Your task to perform on an android device: turn on data saver in the chrome app Image 0: 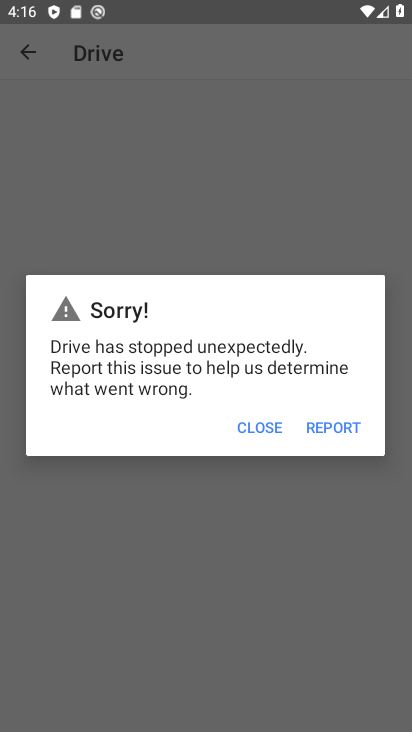
Step 0: press home button
Your task to perform on an android device: turn on data saver in the chrome app Image 1: 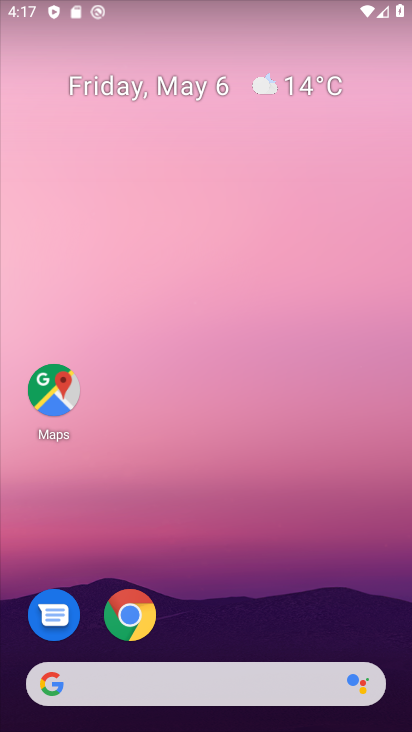
Step 1: click (244, 619)
Your task to perform on an android device: turn on data saver in the chrome app Image 2: 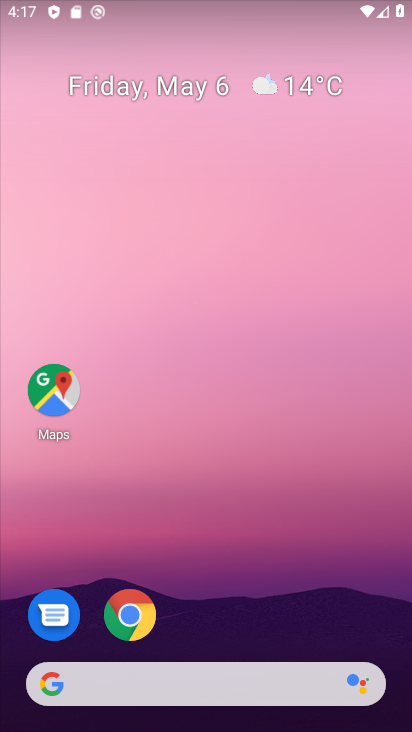
Step 2: click (128, 619)
Your task to perform on an android device: turn on data saver in the chrome app Image 3: 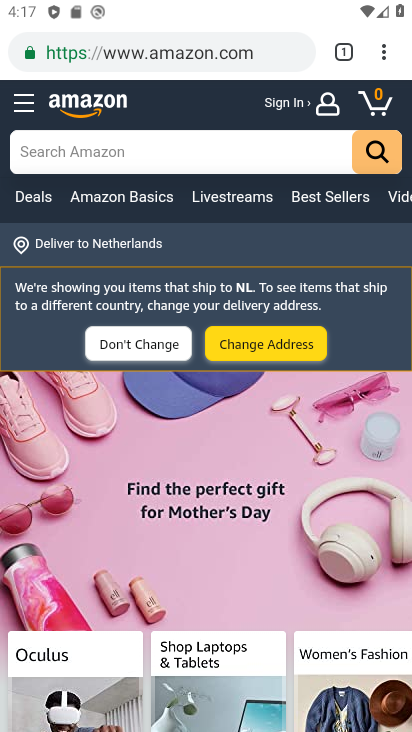
Step 3: click (387, 66)
Your task to perform on an android device: turn on data saver in the chrome app Image 4: 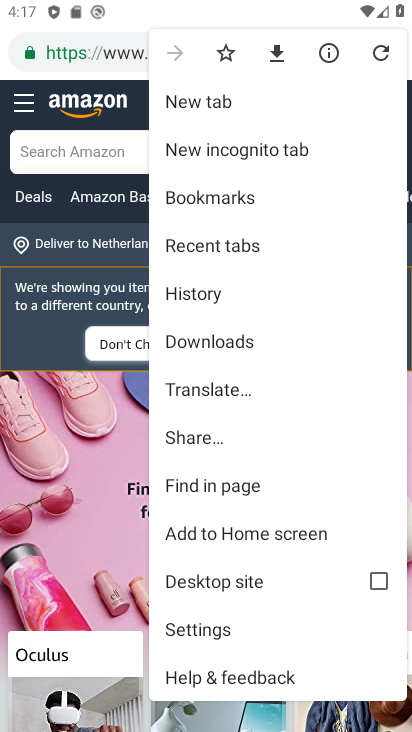
Step 4: click (219, 622)
Your task to perform on an android device: turn on data saver in the chrome app Image 5: 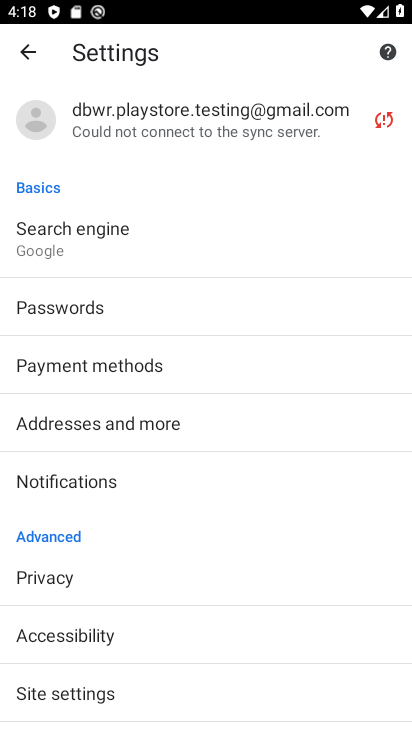
Step 5: drag from (168, 675) to (171, 357)
Your task to perform on an android device: turn on data saver in the chrome app Image 6: 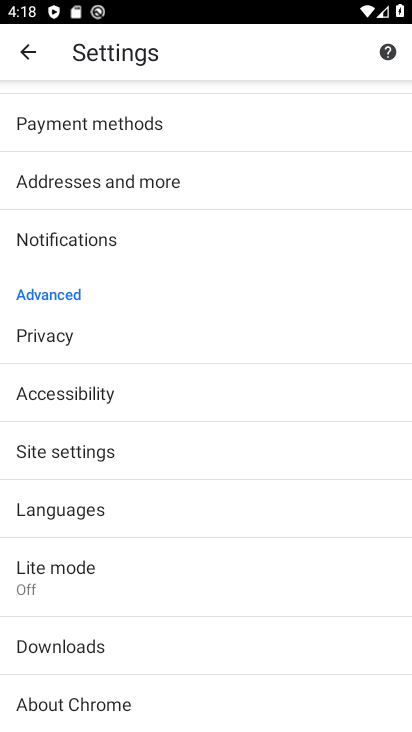
Step 6: click (146, 573)
Your task to perform on an android device: turn on data saver in the chrome app Image 7: 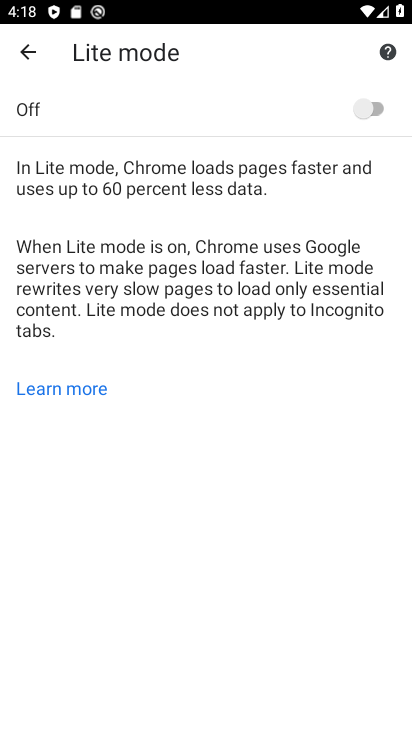
Step 7: click (389, 98)
Your task to perform on an android device: turn on data saver in the chrome app Image 8: 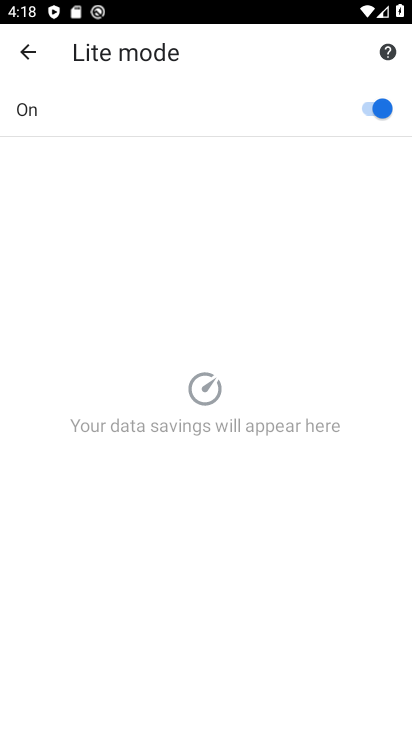
Step 8: task complete